Your task to perform on an android device: Open display settings Image 0: 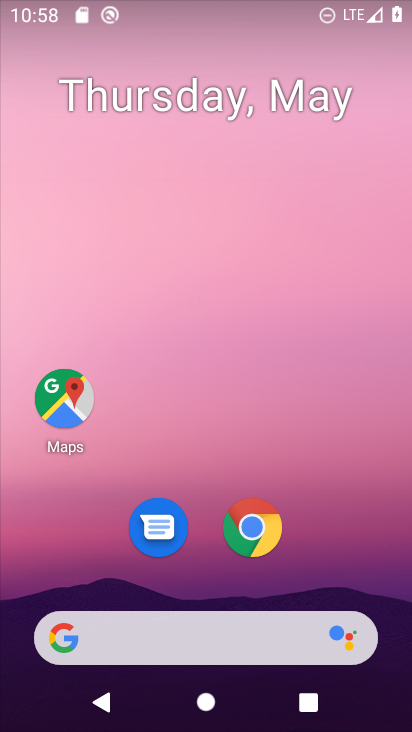
Step 0: drag from (349, 499) to (357, 165)
Your task to perform on an android device: Open display settings Image 1: 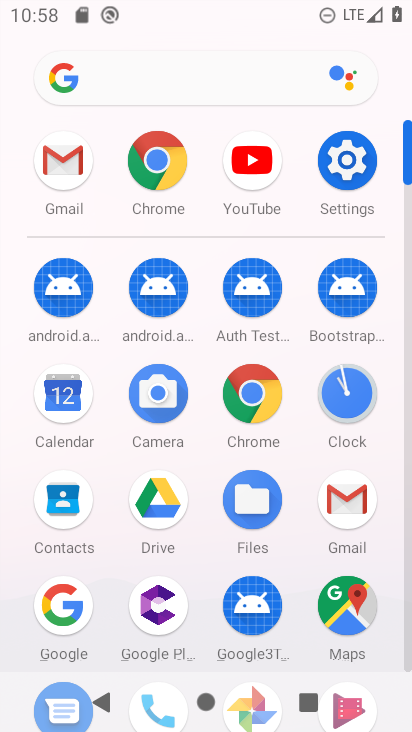
Step 1: click (363, 157)
Your task to perform on an android device: Open display settings Image 2: 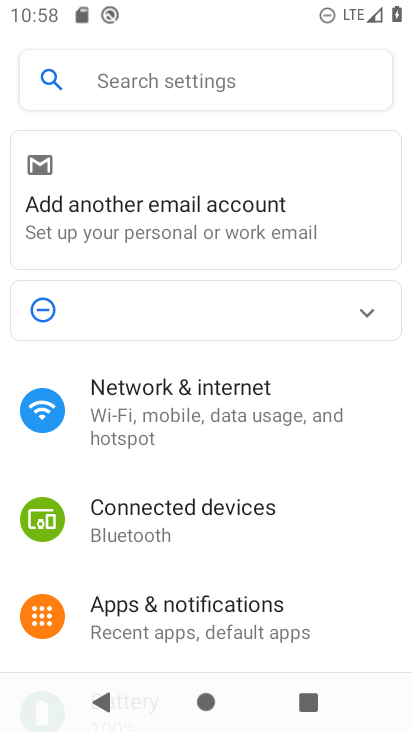
Step 2: drag from (242, 572) to (289, 188)
Your task to perform on an android device: Open display settings Image 3: 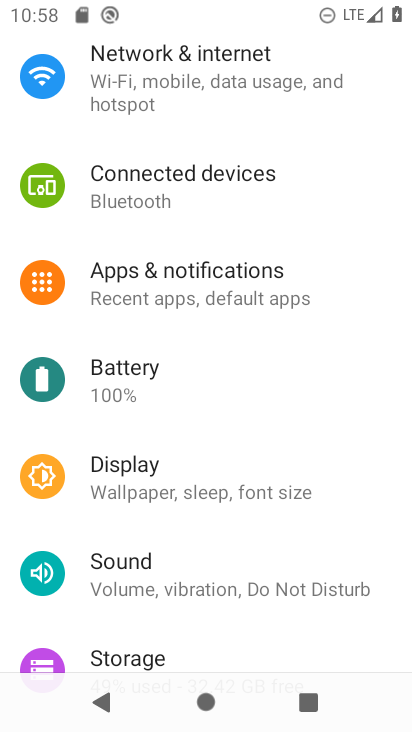
Step 3: click (160, 466)
Your task to perform on an android device: Open display settings Image 4: 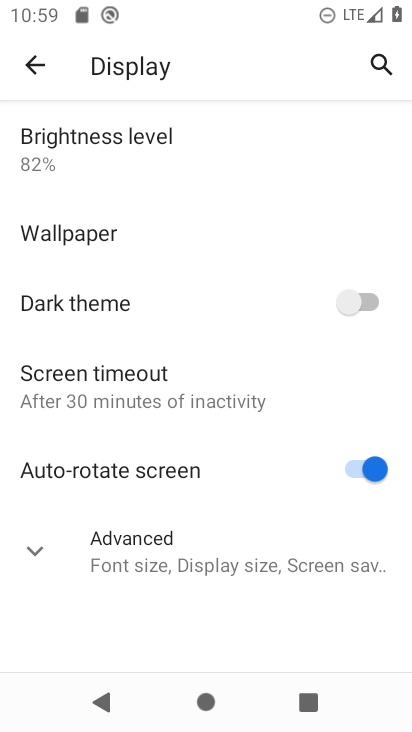
Step 4: task complete